Your task to perform on an android device: Go to accessibility settings Image 0: 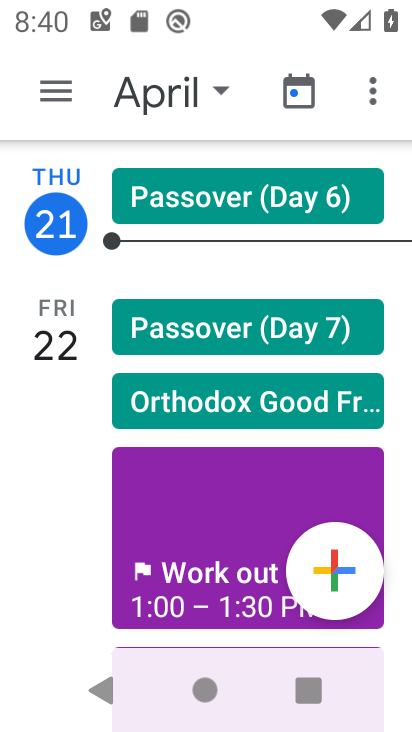
Step 0: drag from (277, 628) to (246, 474)
Your task to perform on an android device: Go to accessibility settings Image 1: 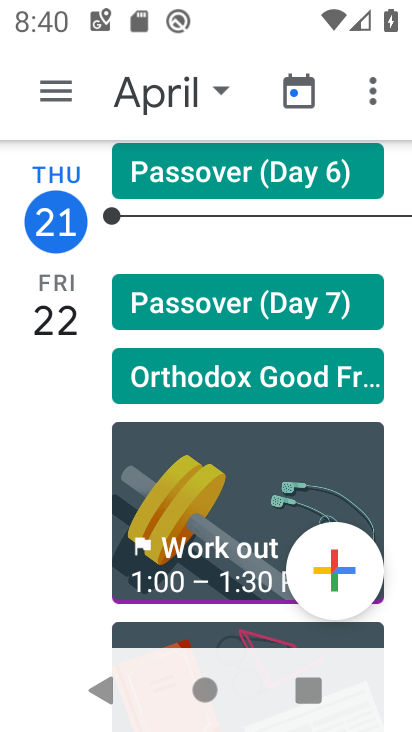
Step 1: press home button
Your task to perform on an android device: Go to accessibility settings Image 2: 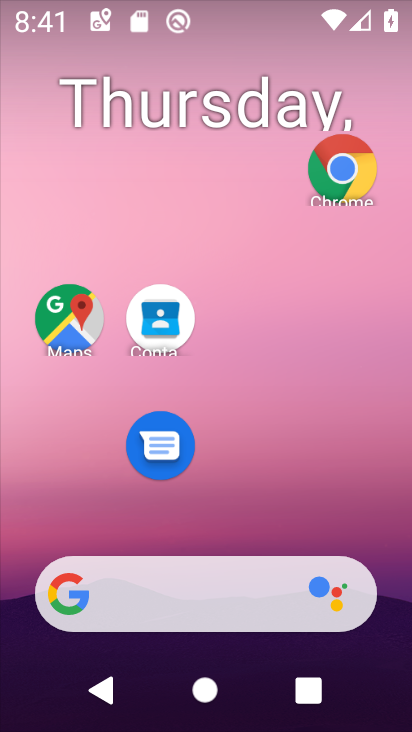
Step 2: drag from (284, 656) to (267, 286)
Your task to perform on an android device: Go to accessibility settings Image 3: 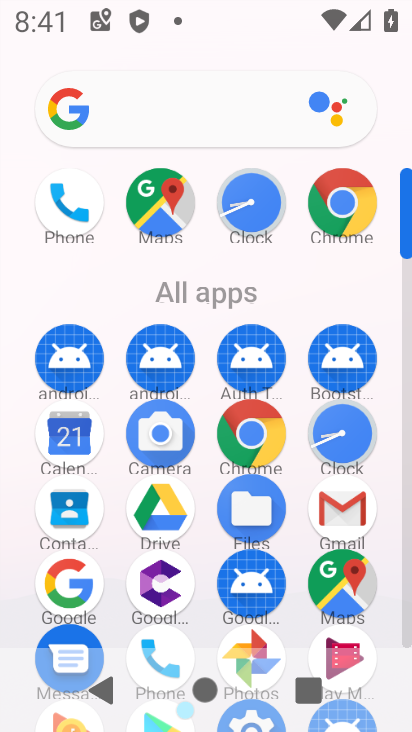
Step 3: drag from (204, 477) to (186, 335)
Your task to perform on an android device: Go to accessibility settings Image 4: 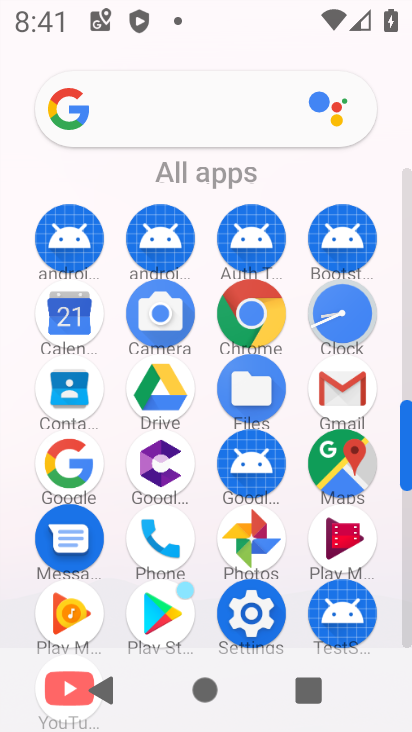
Step 4: click (252, 602)
Your task to perform on an android device: Go to accessibility settings Image 5: 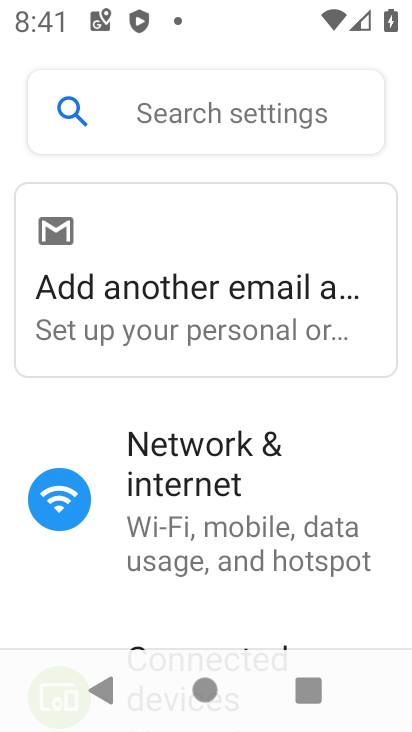
Step 5: click (172, 108)
Your task to perform on an android device: Go to accessibility settings Image 6: 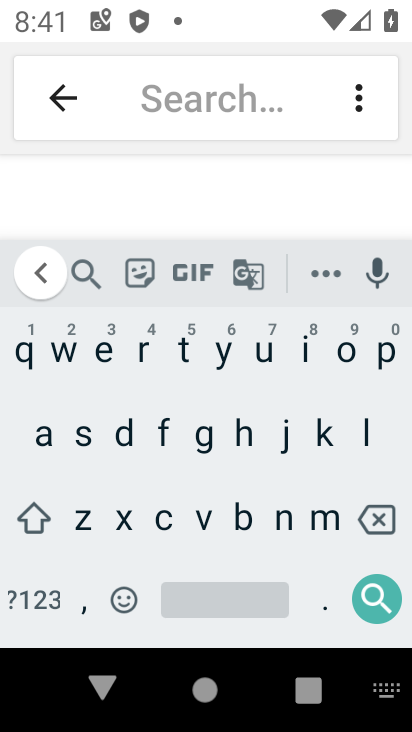
Step 6: click (45, 428)
Your task to perform on an android device: Go to accessibility settings Image 7: 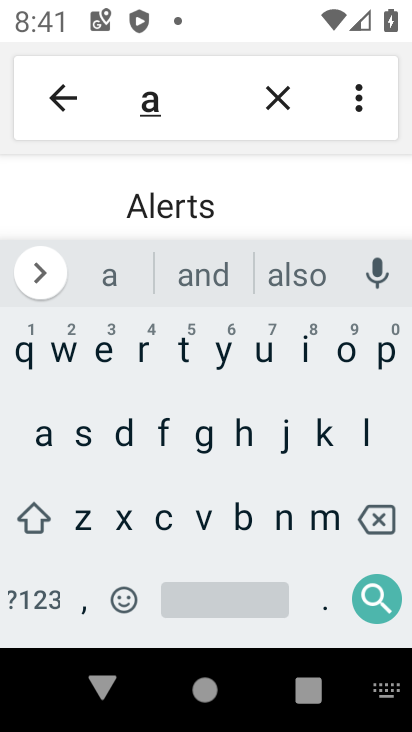
Step 7: click (166, 525)
Your task to perform on an android device: Go to accessibility settings Image 8: 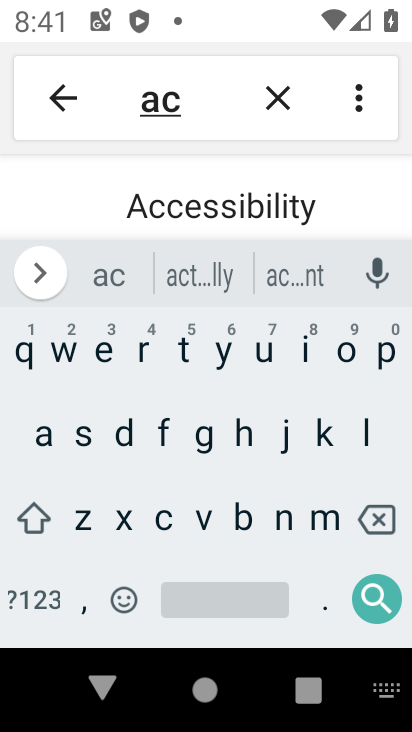
Step 8: click (216, 196)
Your task to perform on an android device: Go to accessibility settings Image 9: 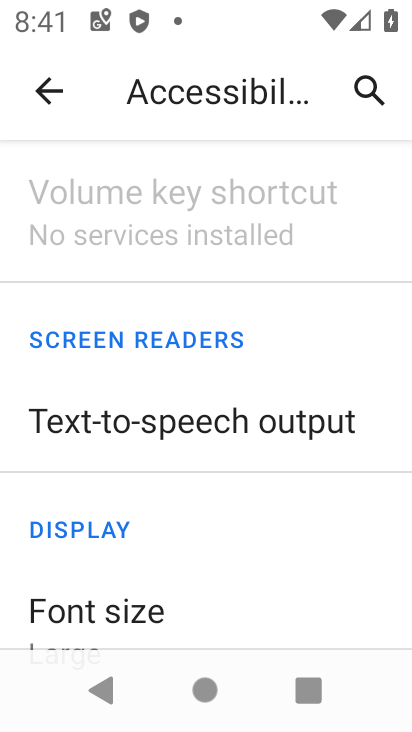
Step 9: task complete